Your task to perform on an android device: Find coffee shops on Maps Image 0: 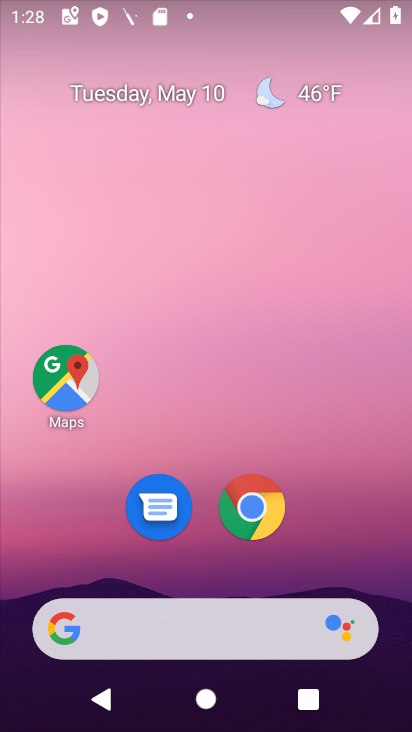
Step 0: drag from (279, 650) to (215, 243)
Your task to perform on an android device: Find coffee shops on Maps Image 1: 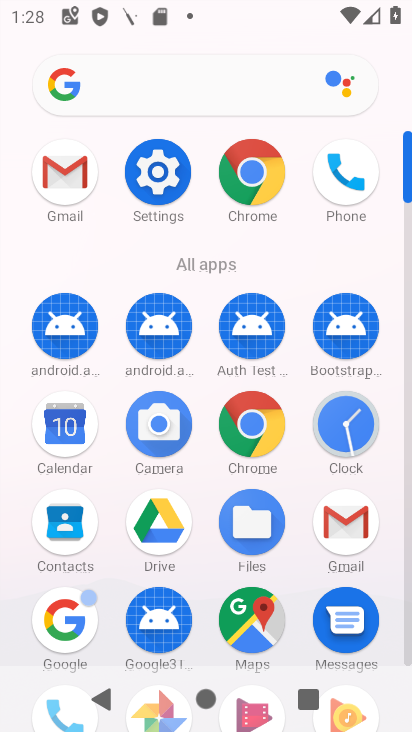
Step 1: click (252, 624)
Your task to perform on an android device: Find coffee shops on Maps Image 2: 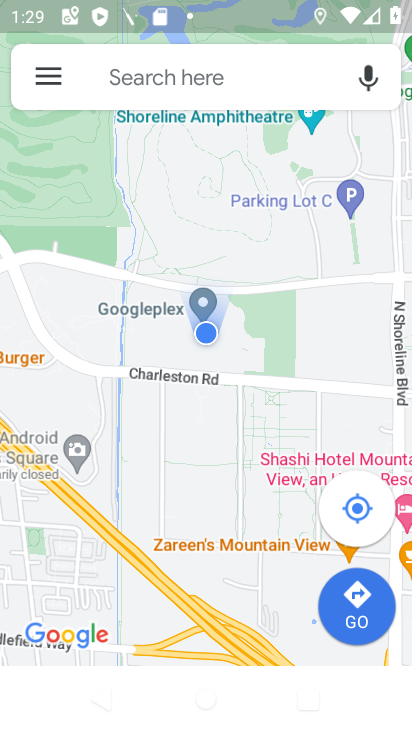
Step 2: click (181, 83)
Your task to perform on an android device: Find coffee shops on Maps Image 3: 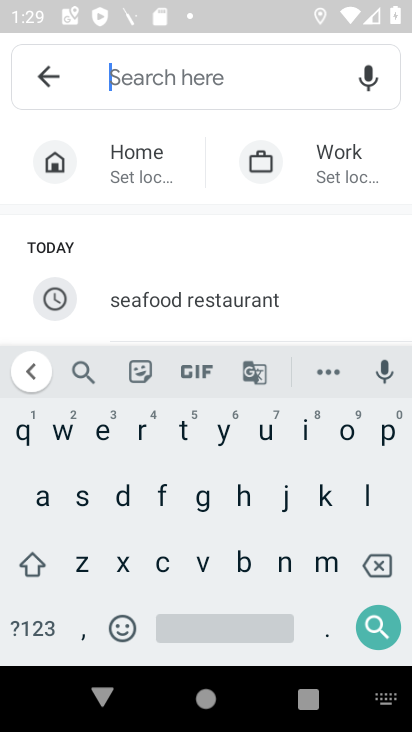
Step 3: click (153, 558)
Your task to perform on an android device: Find coffee shops on Maps Image 4: 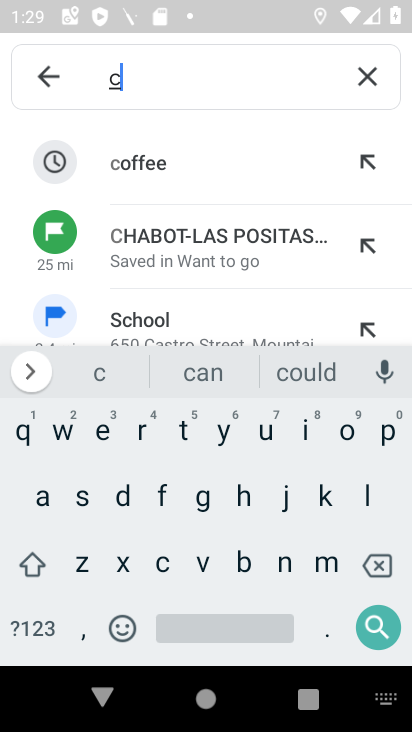
Step 4: click (196, 164)
Your task to perform on an android device: Find coffee shops on Maps Image 5: 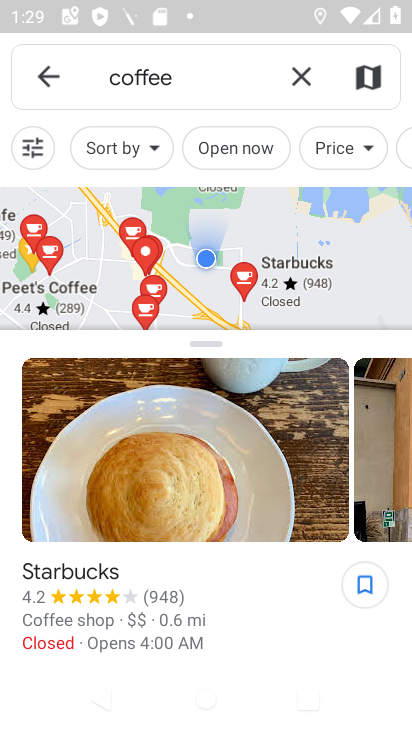
Step 5: click (115, 278)
Your task to perform on an android device: Find coffee shops on Maps Image 6: 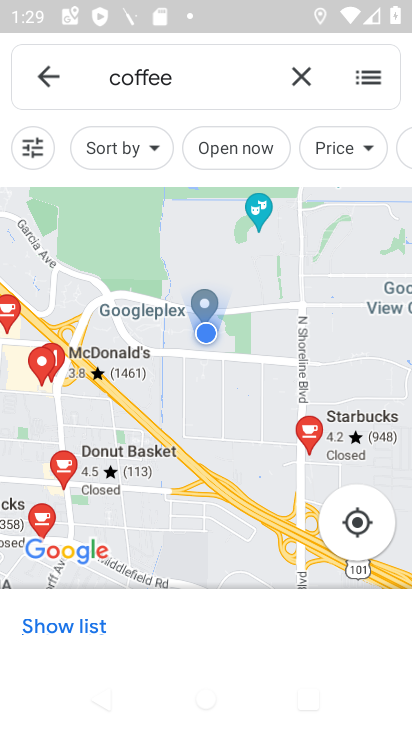
Step 6: task complete